Your task to perform on an android device: turn vacation reply on in the gmail app Image 0: 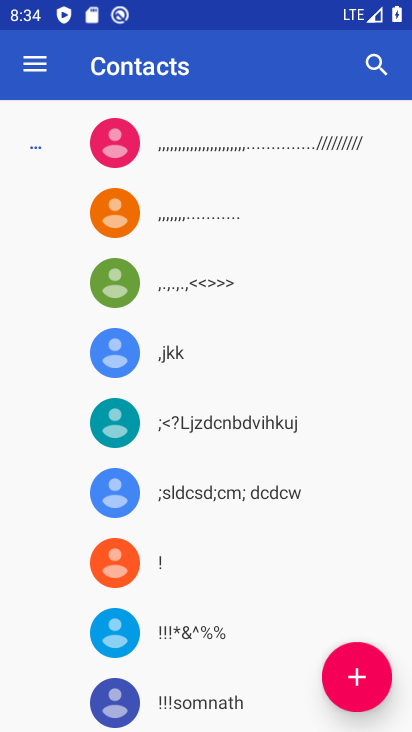
Step 0: press home button
Your task to perform on an android device: turn vacation reply on in the gmail app Image 1: 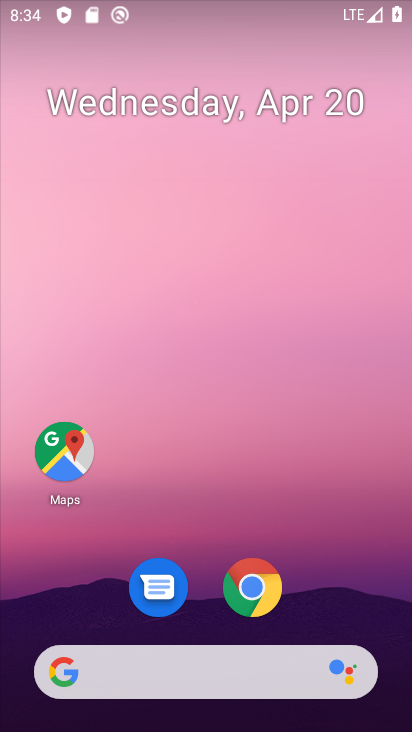
Step 1: drag from (355, 589) to (358, 169)
Your task to perform on an android device: turn vacation reply on in the gmail app Image 2: 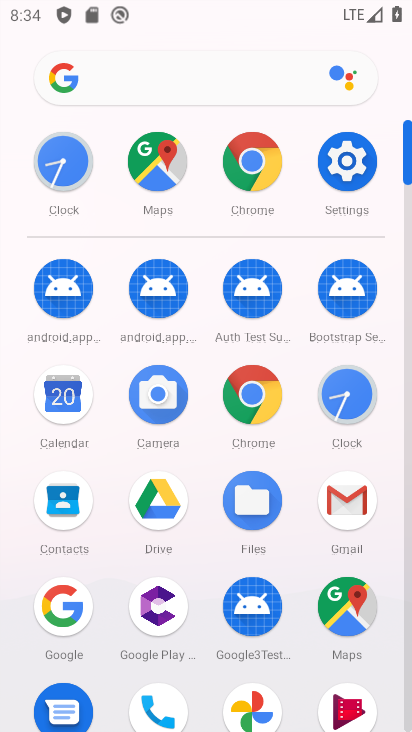
Step 2: click (358, 505)
Your task to perform on an android device: turn vacation reply on in the gmail app Image 3: 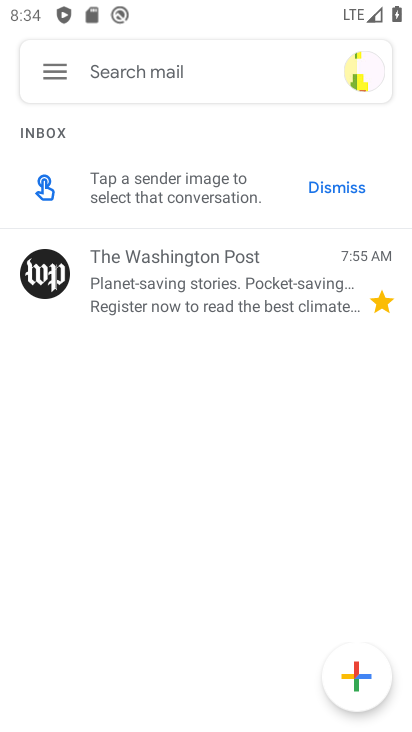
Step 3: click (52, 79)
Your task to perform on an android device: turn vacation reply on in the gmail app Image 4: 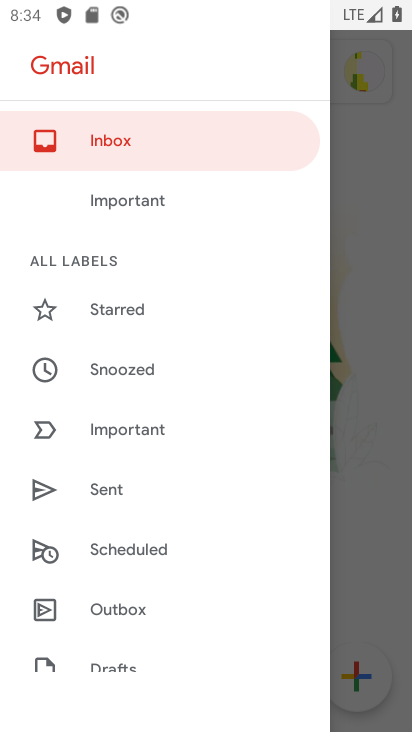
Step 4: drag from (257, 559) to (257, 393)
Your task to perform on an android device: turn vacation reply on in the gmail app Image 5: 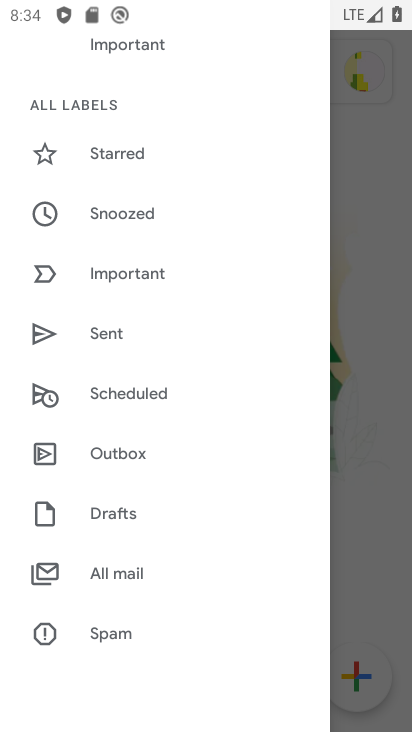
Step 5: drag from (231, 593) to (235, 434)
Your task to perform on an android device: turn vacation reply on in the gmail app Image 6: 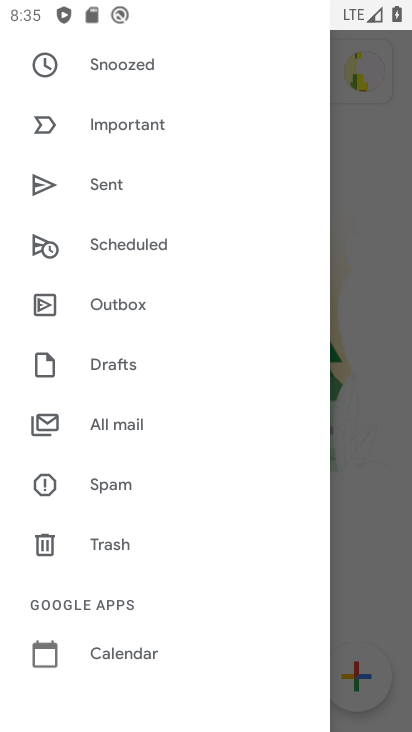
Step 6: drag from (248, 594) to (276, 438)
Your task to perform on an android device: turn vacation reply on in the gmail app Image 7: 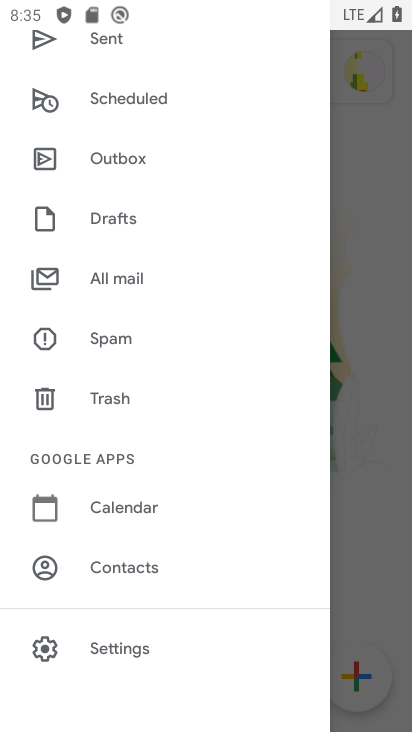
Step 7: drag from (256, 602) to (253, 477)
Your task to perform on an android device: turn vacation reply on in the gmail app Image 8: 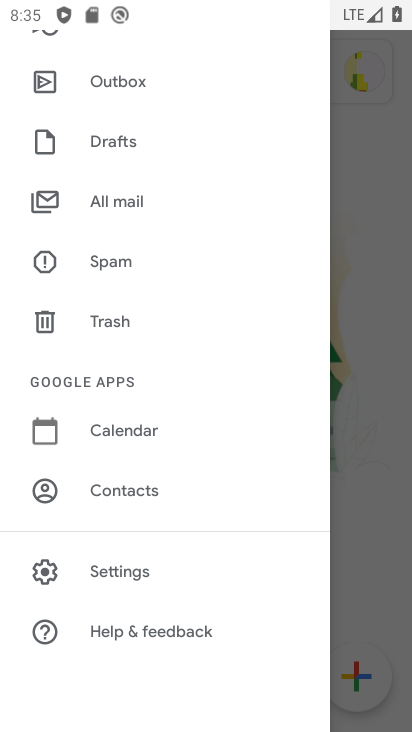
Step 8: click (148, 577)
Your task to perform on an android device: turn vacation reply on in the gmail app Image 9: 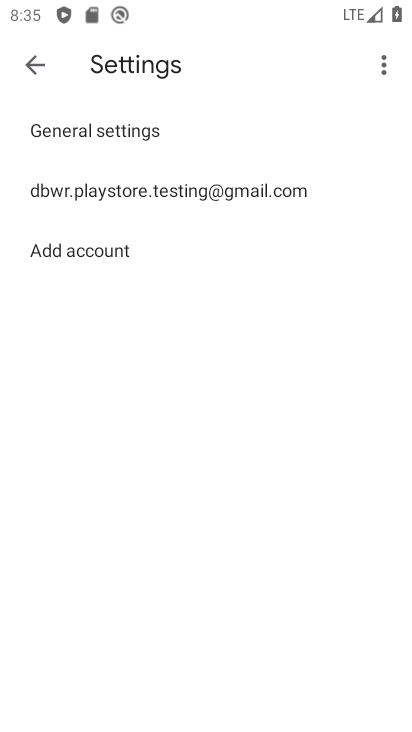
Step 9: click (247, 190)
Your task to perform on an android device: turn vacation reply on in the gmail app Image 10: 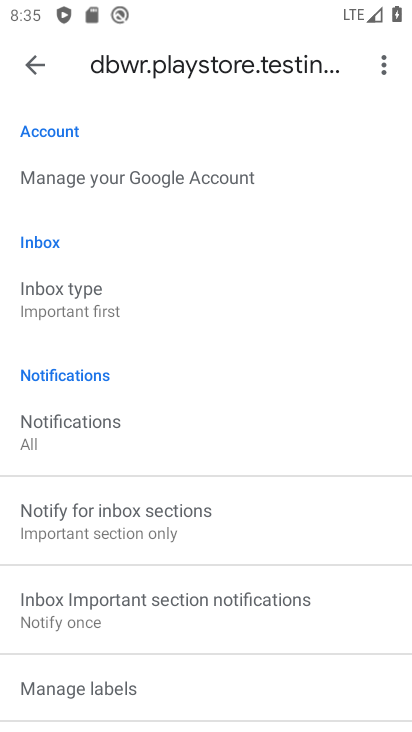
Step 10: drag from (344, 515) to (361, 389)
Your task to perform on an android device: turn vacation reply on in the gmail app Image 11: 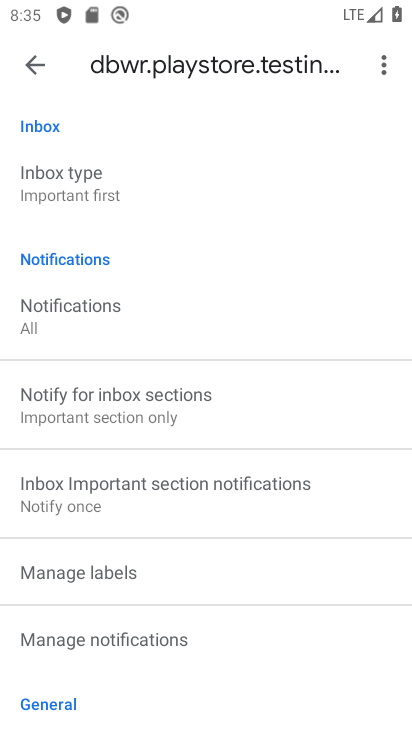
Step 11: drag from (373, 506) to (373, 372)
Your task to perform on an android device: turn vacation reply on in the gmail app Image 12: 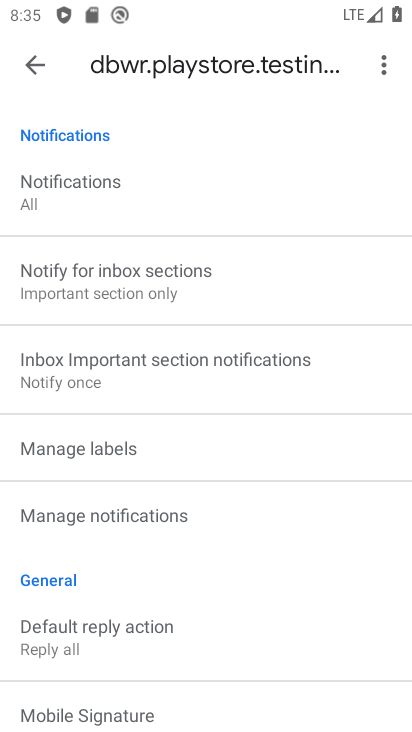
Step 12: drag from (365, 501) to (368, 383)
Your task to perform on an android device: turn vacation reply on in the gmail app Image 13: 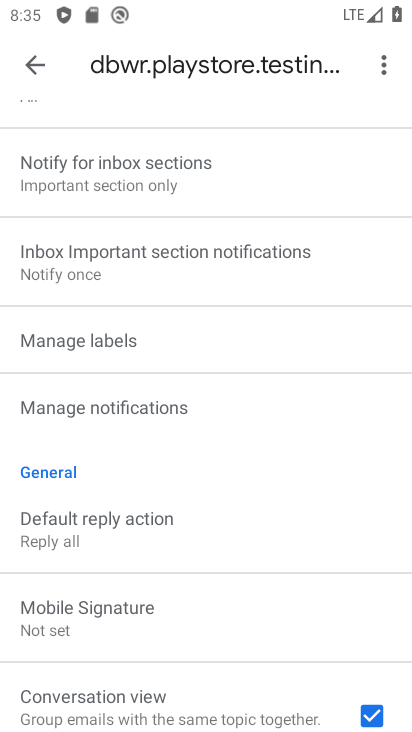
Step 13: drag from (348, 525) to (352, 431)
Your task to perform on an android device: turn vacation reply on in the gmail app Image 14: 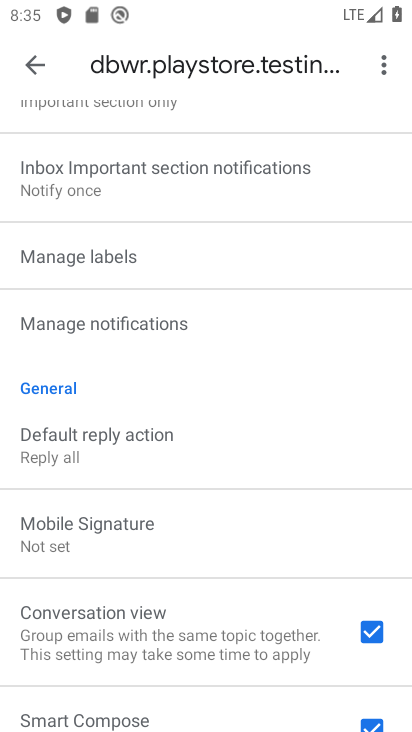
Step 14: drag from (316, 503) to (320, 387)
Your task to perform on an android device: turn vacation reply on in the gmail app Image 15: 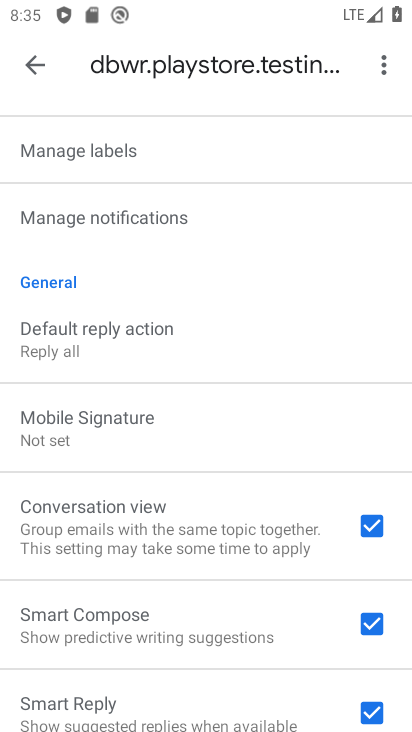
Step 15: drag from (322, 572) to (317, 416)
Your task to perform on an android device: turn vacation reply on in the gmail app Image 16: 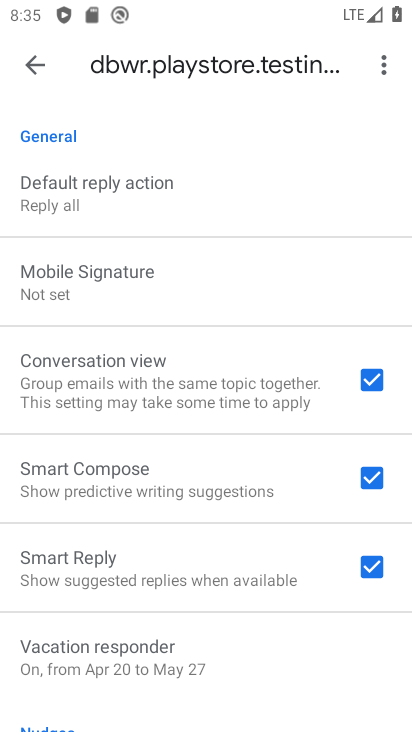
Step 16: drag from (308, 609) to (306, 462)
Your task to perform on an android device: turn vacation reply on in the gmail app Image 17: 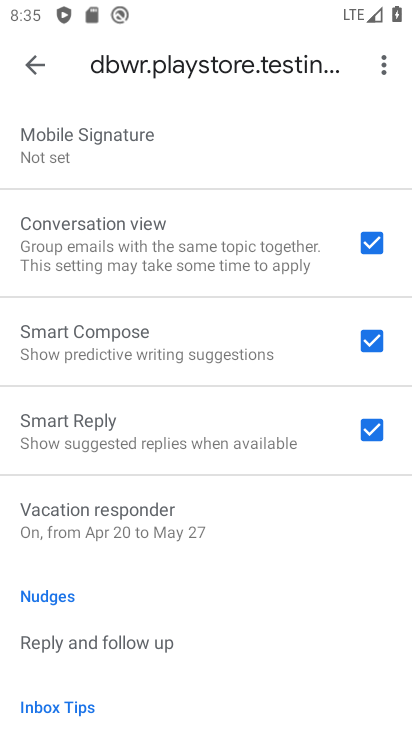
Step 17: drag from (280, 546) to (276, 424)
Your task to perform on an android device: turn vacation reply on in the gmail app Image 18: 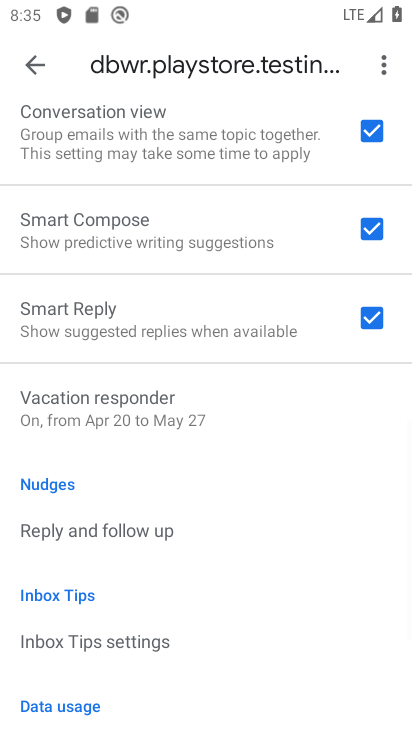
Step 18: click (237, 429)
Your task to perform on an android device: turn vacation reply on in the gmail app Image 19: 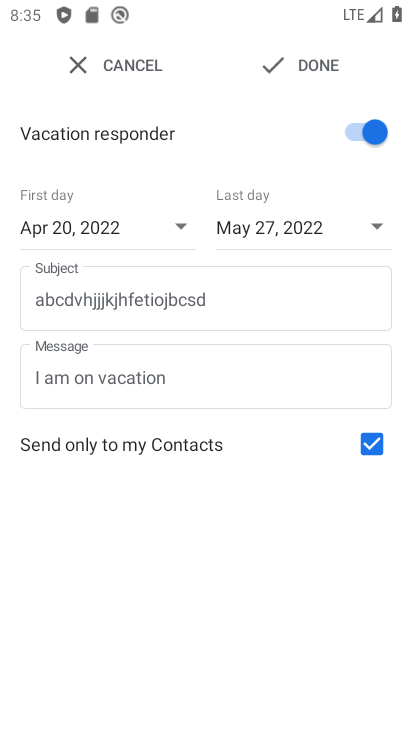
Step 19: task complete